Your task to perform on an android device: Go to privacy settings Image 0: 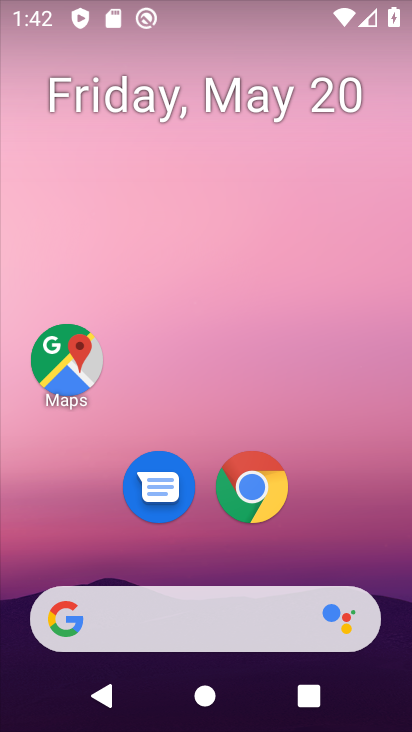
Step 0: drag from (343, 551) to (366, 63)
Your task to perform on an android device: Go to privacy settings Image 1: 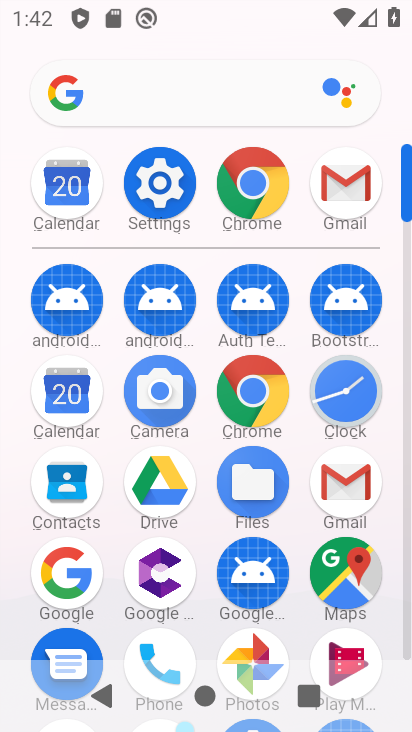
Step 1: click (170, 186)
Your task to perform on an android device: Go to privacy settings Image 2: 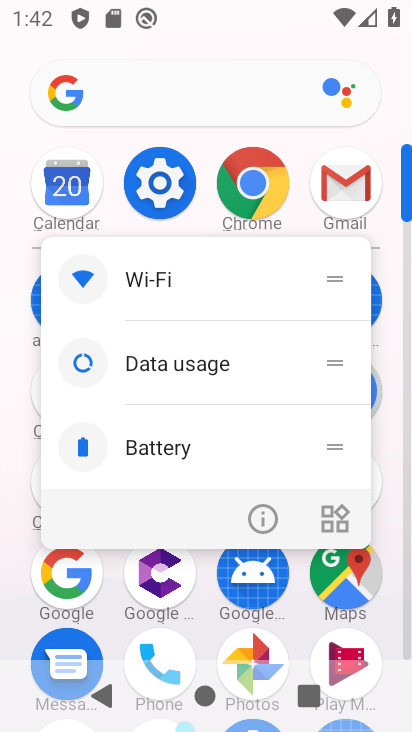
Step 2: click (170, 186)
Your task to perform on an android device: Go to privacy settings Image 3: 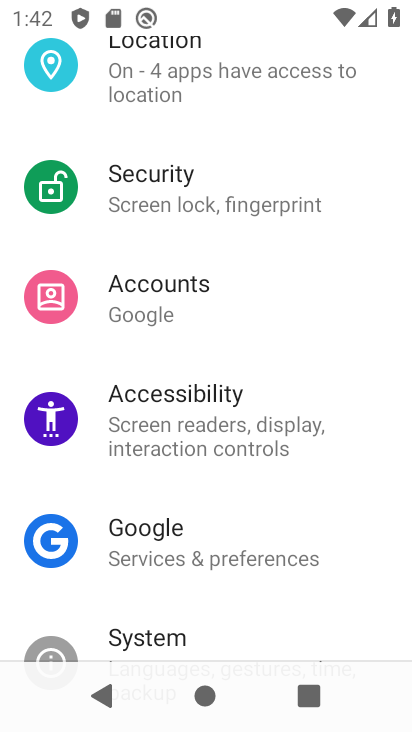
Step 3: drag from (209, 600) to (224, 178)
Your task to perform on an android device: Go to privacy settings Image 4: 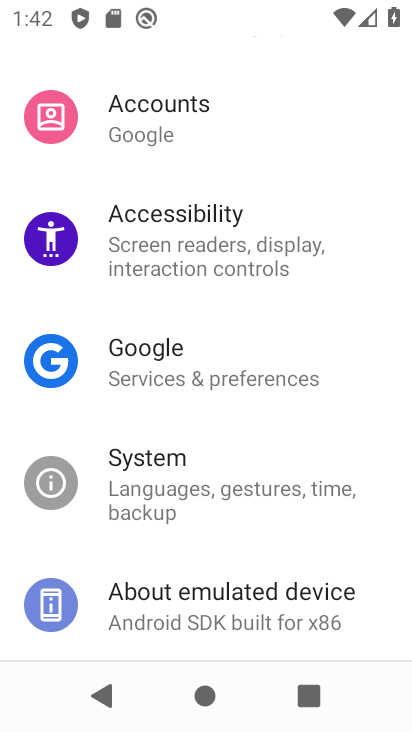
Step 4: drag from (221, 189) to (246, 590)
Your task to perform on an android device: Go to privacy settings Image 5: 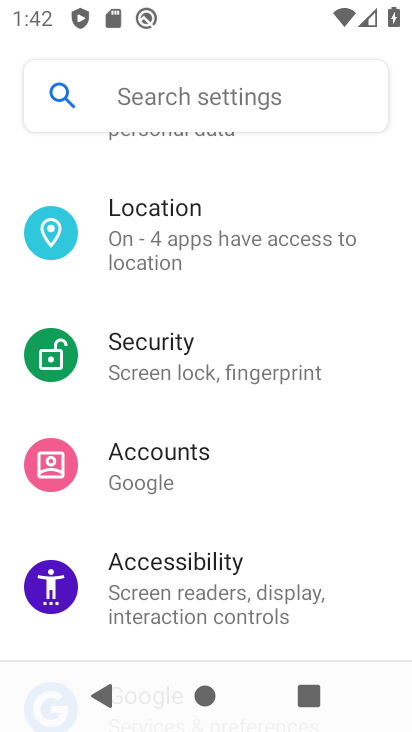
Step 5: drag from (235, 168) to (239, 667)
Your task to perform on an android device: Go to privacy settings Image 6: 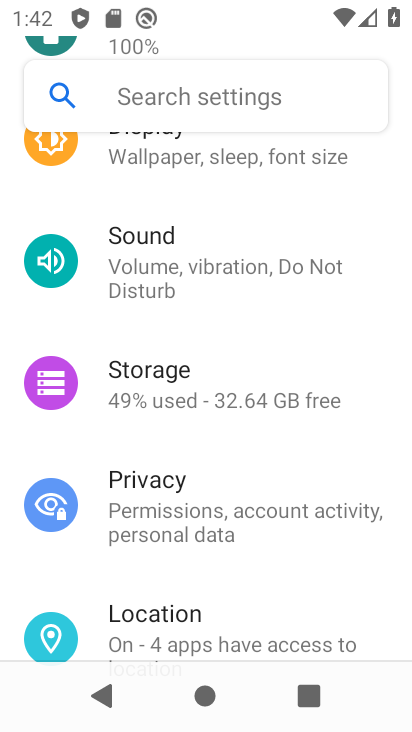
Step 6: click (176, 527)
Your task to perform on an android device: Go to privacy settings Image 7: 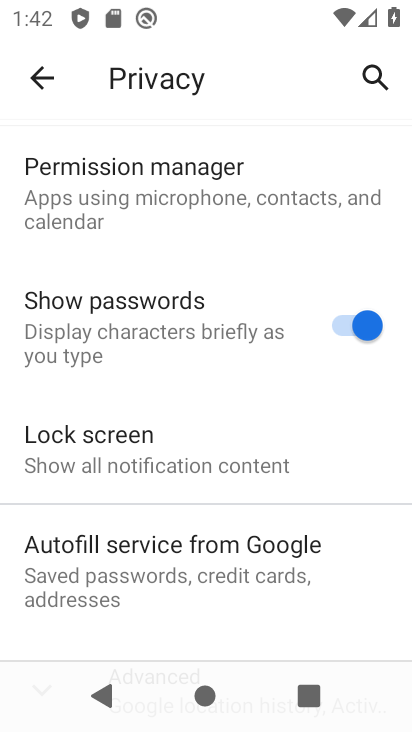
Step 7: task complete